Your task to perform on an android device: uninstall "Pinterest" Image 0: 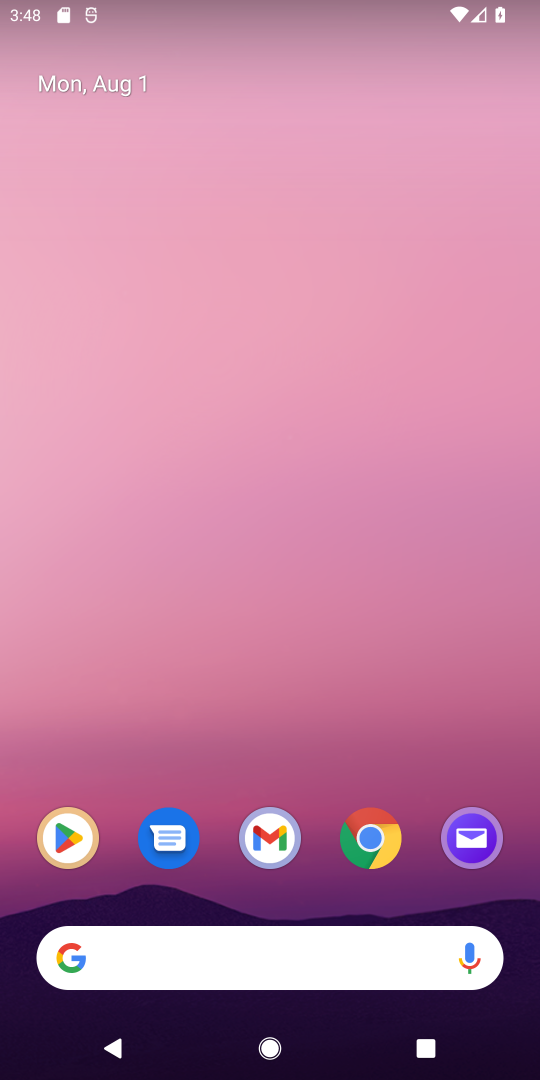
Step 0: click (54, 825)
Your task to perform on an android device: uninstall "Pinterest" Image 1: 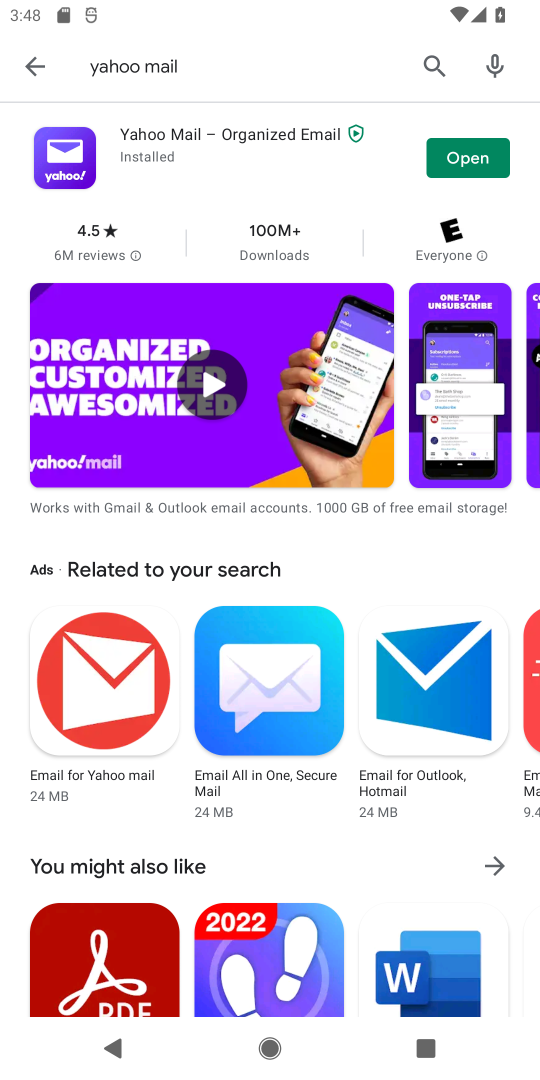
Step 1: click (439, 52)
Your task to perform on an android device: uninstall "Pinterest" Image 2: 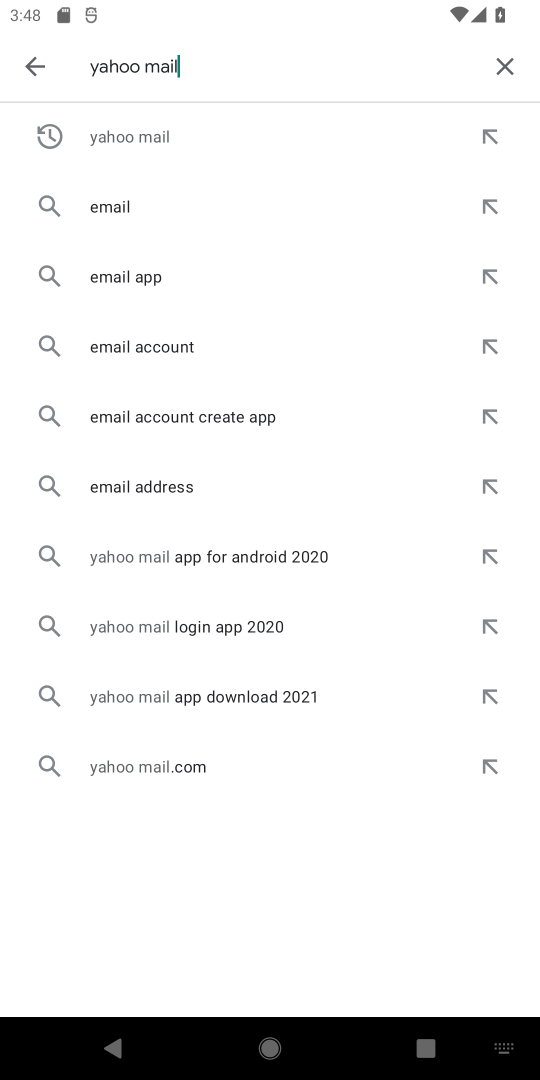
Step 2: click (499, 80)
Your task to perform on an android device: uninstall "Pinterest" Image 3: 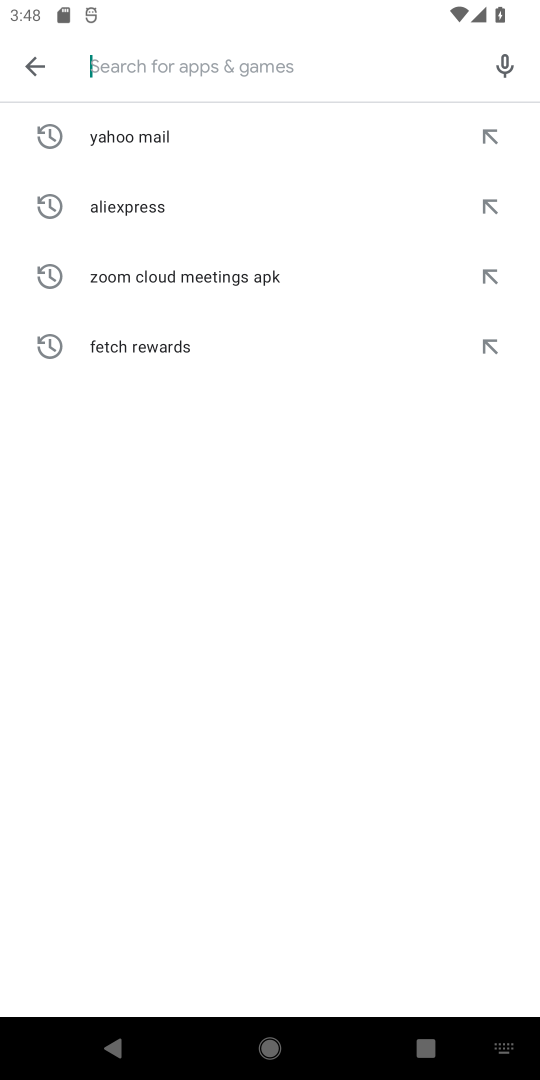
Step 3: type "Pinterest"
Your task to perform on an android device: uninstall "Pinterest" Image 4: 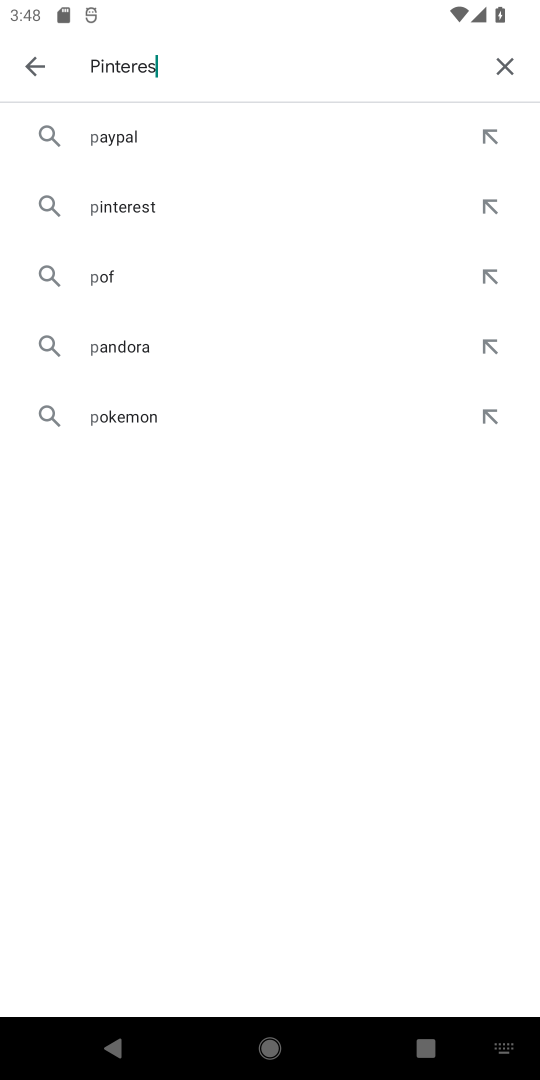
Step 4: type ""
Your task to perform on an android device: uninstall "Pinterest" Image 5: 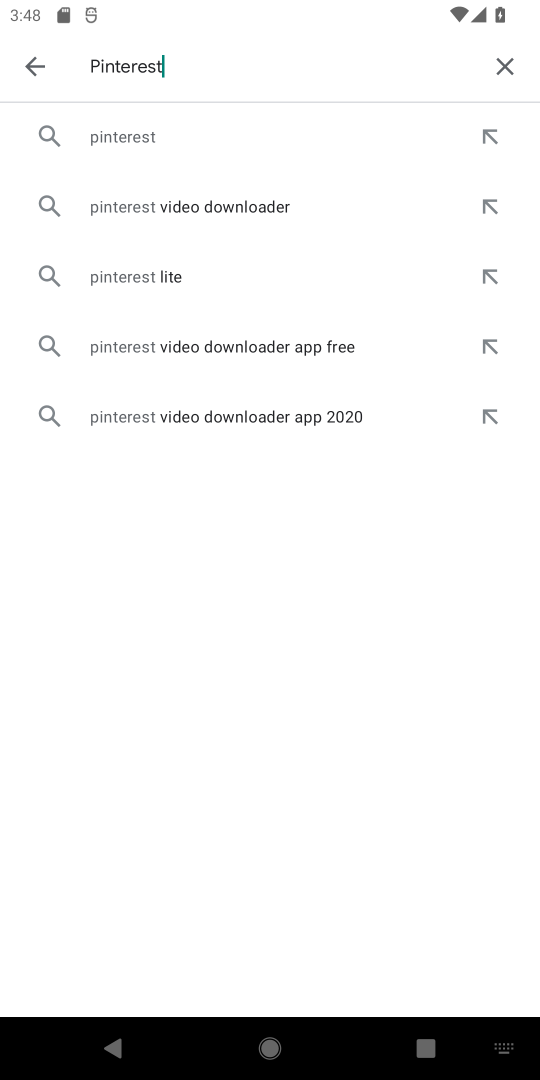
Step 5: click (209, 147)
Your task to perform on an android device: uninstall "Pinterest" Image 6: 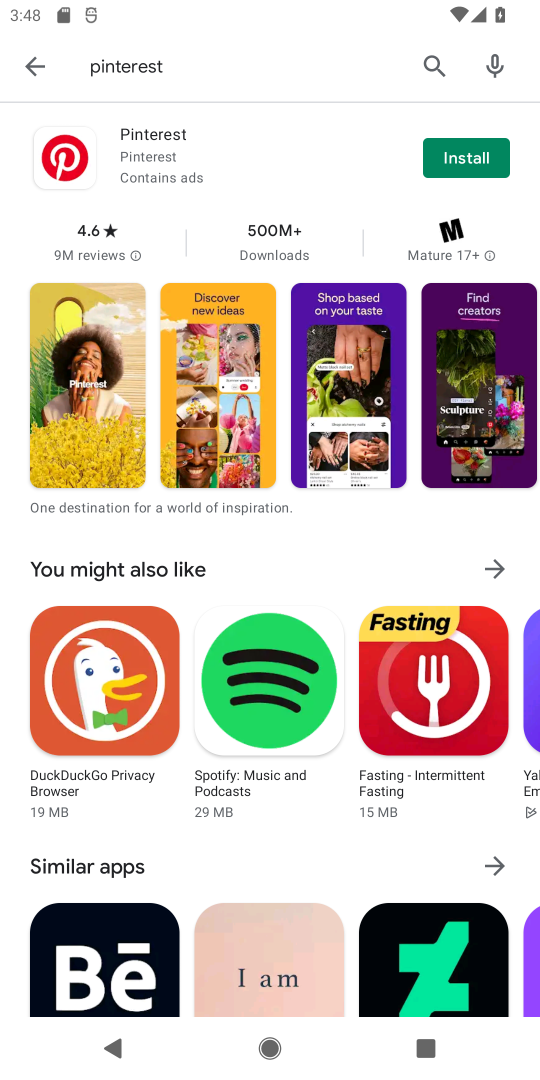
Step 6: task complete